Your task to perform on an android device: Open settings on Google Maps Image 0: 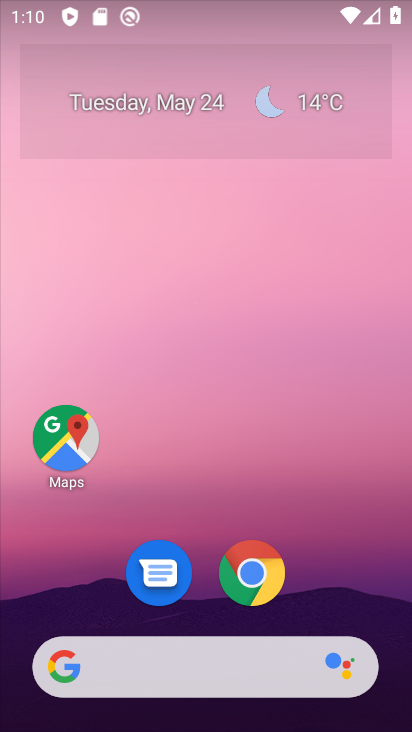
Step 0: click (69, 432)
Your task to perform on an android device: Open settings on Google Maps Image 1: 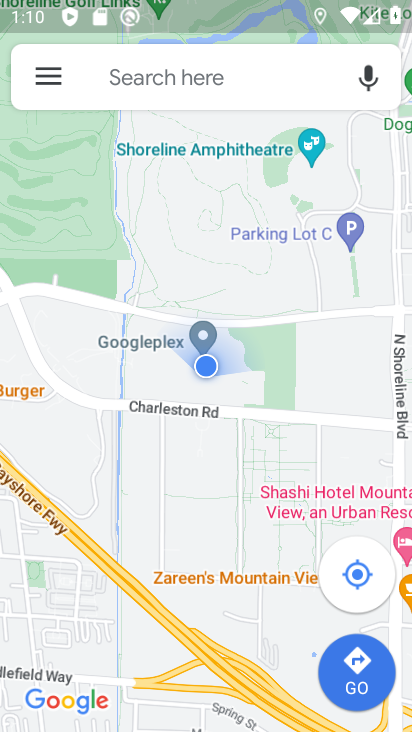
Step 1: click (46, 84)
Your task to perform on an android device: Open settings on Google Maps Image 2: 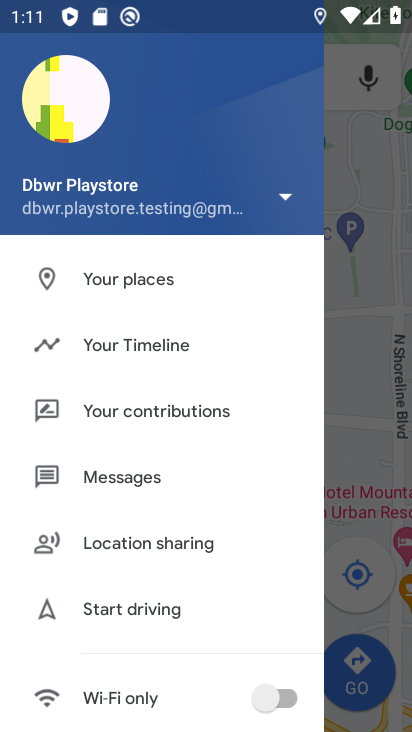
Step 2: drag from (219, 616) to (217, 211)
Your task to perform on an android device: Open settings on Google Maps Image 3: 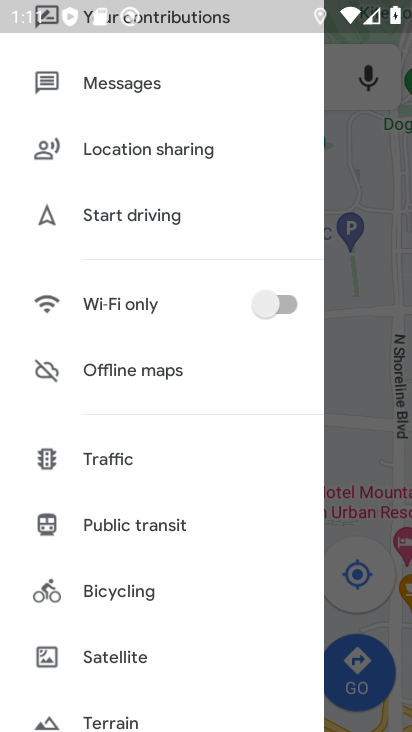
Step 3: drag from (169, 683) to (177, 292)
Your task to perform on an android device: Open settings on Google Maps Image 4: 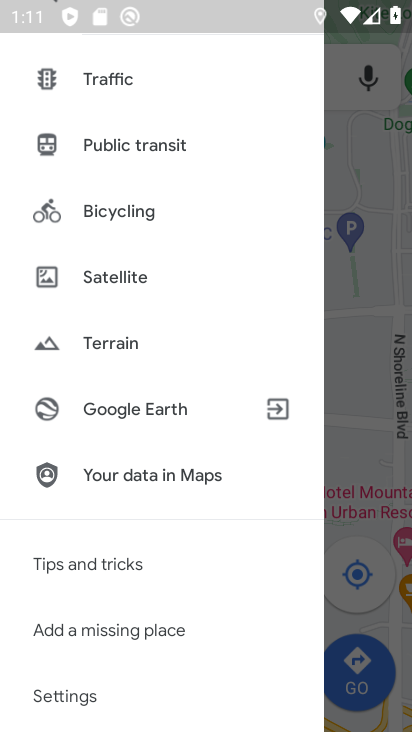
Step 4: click (96, 692)
Your task to perform on an android device: Open settings on Google Maps Image 5: 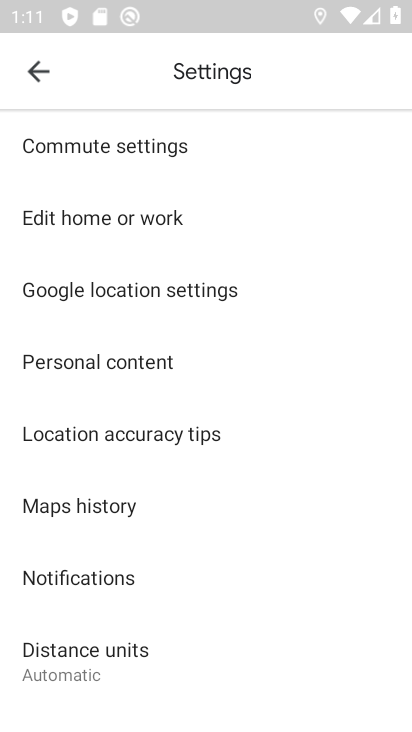
Step 5: task complete